Your task to perform on an android device: set default search engine in the chrome app Image 0: 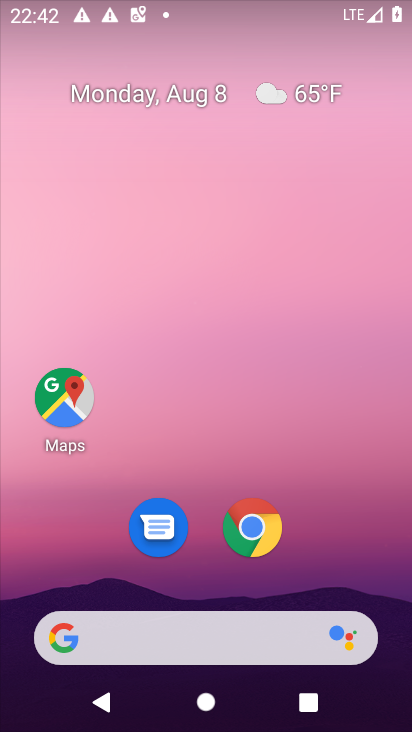
Step 0: click (249, 521)
Your task to perform on an android device: set default search engine in the chrome app Image 1: 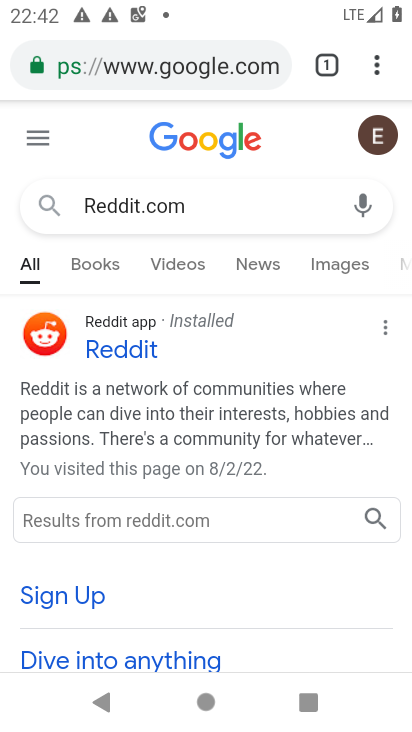
Step 1: click (372, 59)
Your task to perform on an android device: set default search engine in the chrome app Image 2: 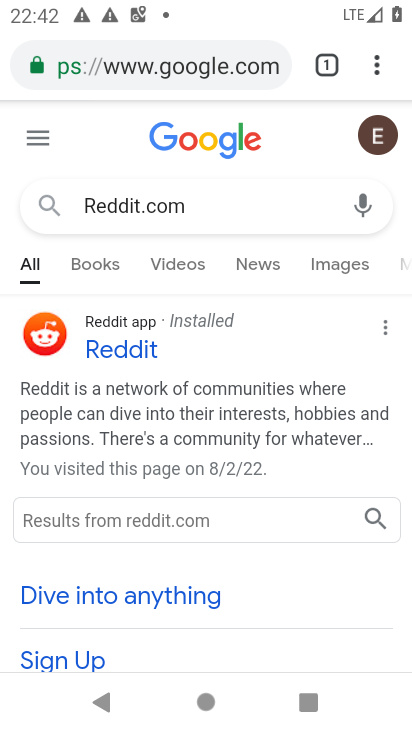
Step 2: click (372, 59)
Your task to perform on an android device: set default search engine in the chrome app Image 3: 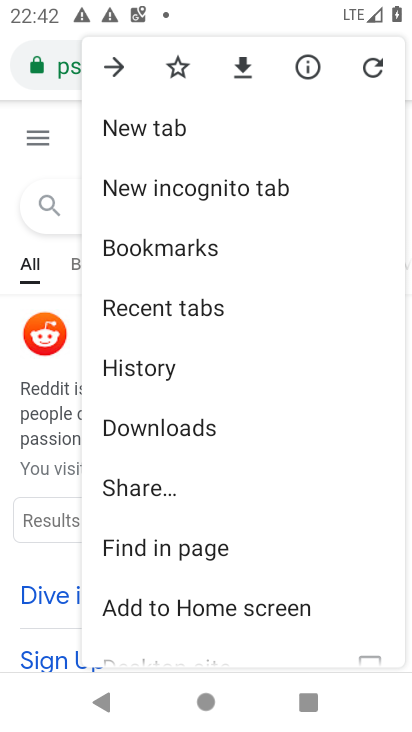
Step 3: drag from (251, 629) to (244, 357)
Your task to perform on an android device: set default search engine in the chrome app Image 4: 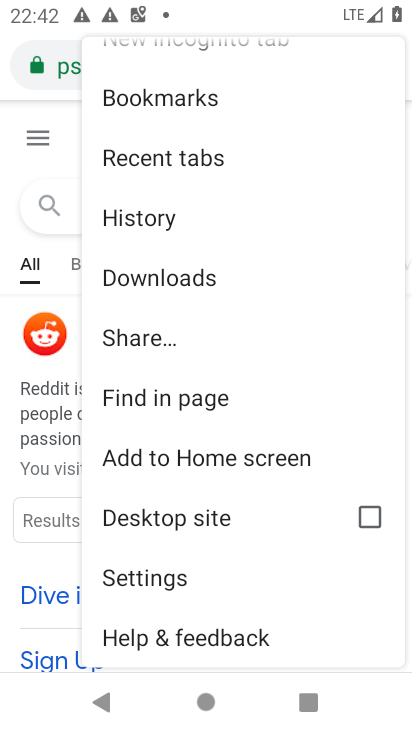
Step 4: click (161, 580)
Your task to perform on an android device: set default search engine in the chrome app Image 5: 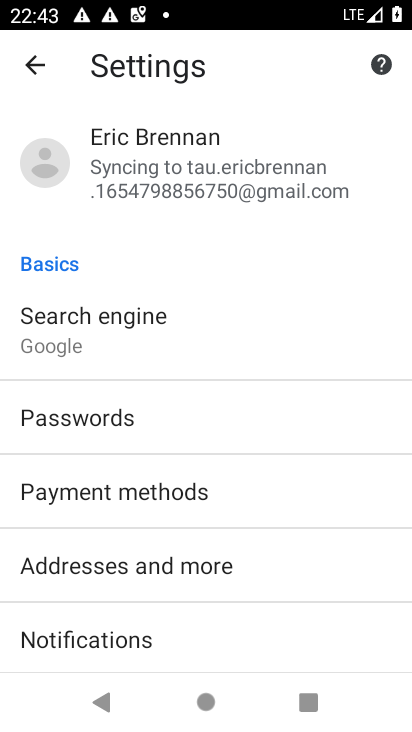
Step 5: click (113, 321)
Your task to perform on an android device: set default search engine in the chrome app Image 6: 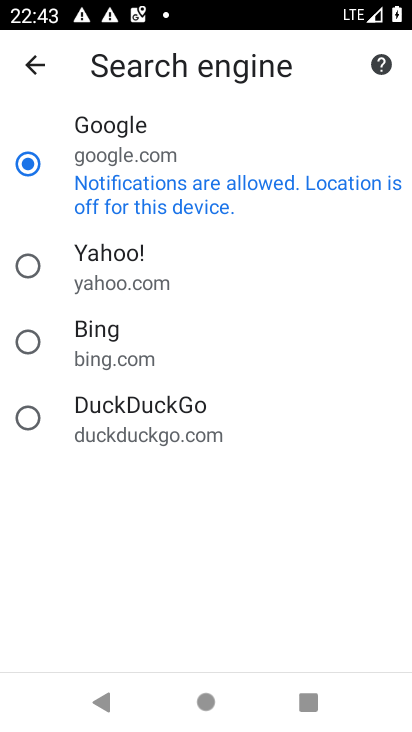
Step 6: task complete